Your task to perform on an android device: change the clock display to digital Image 0: 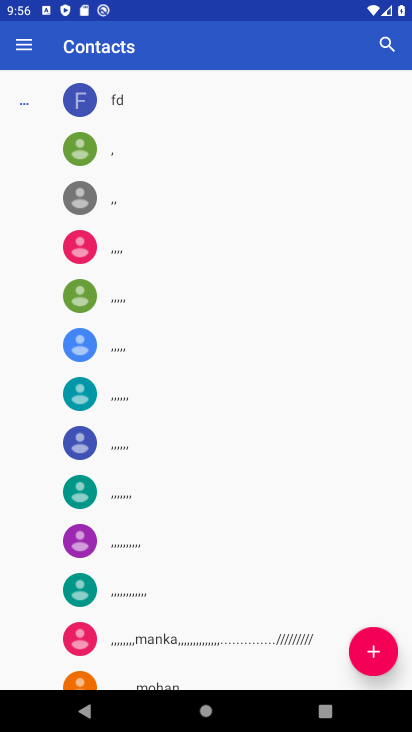
Step 0: press home button
Your task to perform on an android device: change the clock display to digital Image 1: 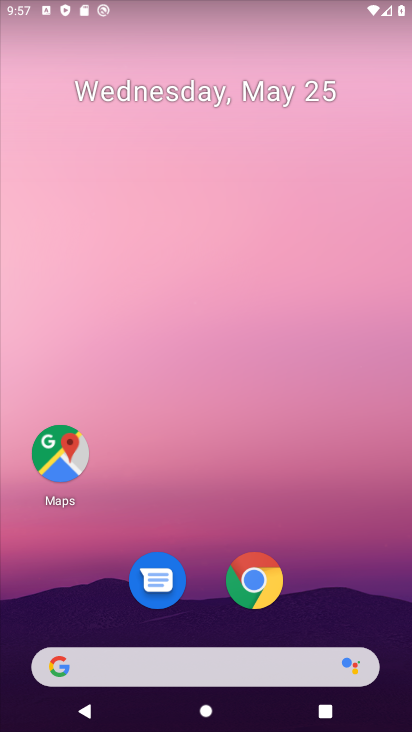
Step 1: drag from (21, 592) to (343, 32)
Your task to perform on an android device: change the clock display to digital Image 2: 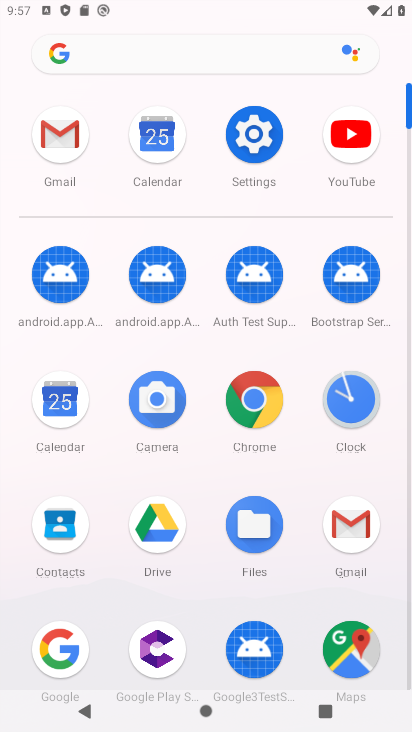
Step 2: click (355, 389)
Your task to perform on an android device: change the clock display to digital Image 3: 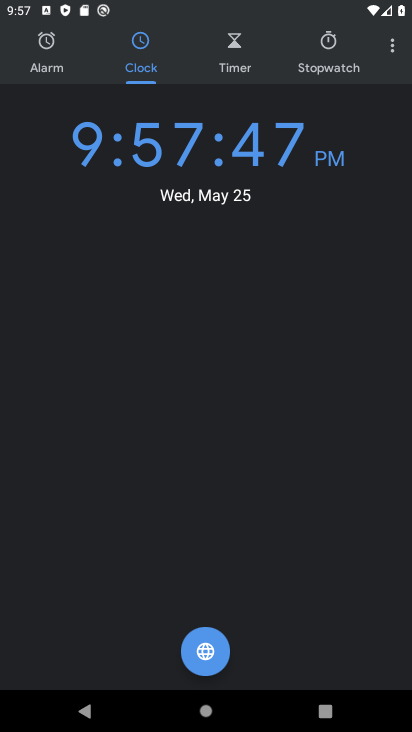
Step 3: click (392, 45)
Your task to perform on an android device: change the clock display to digital Image 4: 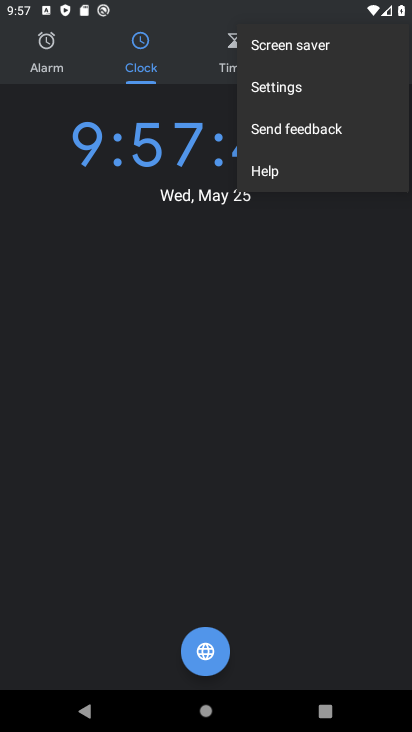
Step 4: click (276, 85)
Your task to perform on an android device: change the clock display to digital Image 5: 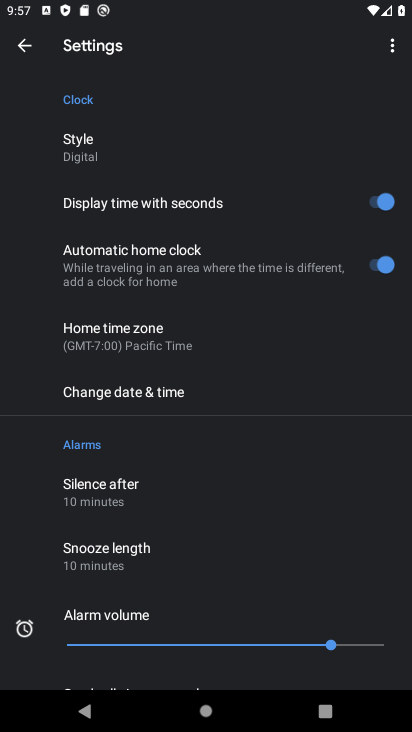
Step 5: task complete